Your task to perform on an android device: turn on bluetooth scan Image 0: 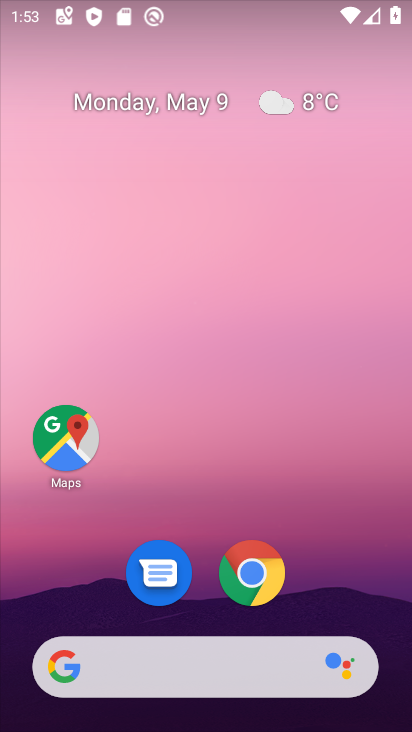
Step 0: drag from (194, 601) to (213, 99)
Your task to perform on an android device: turn on bluetooth scan Image 1: 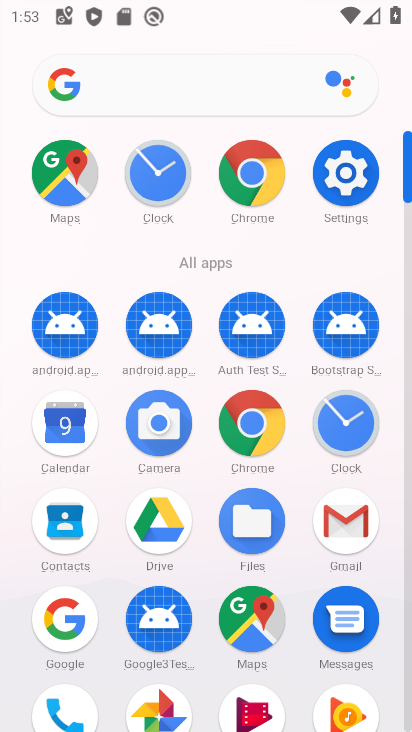
Step 1: click (349, 173)
Your task to perform on an android device: turn on bluetooth scan Image 2: 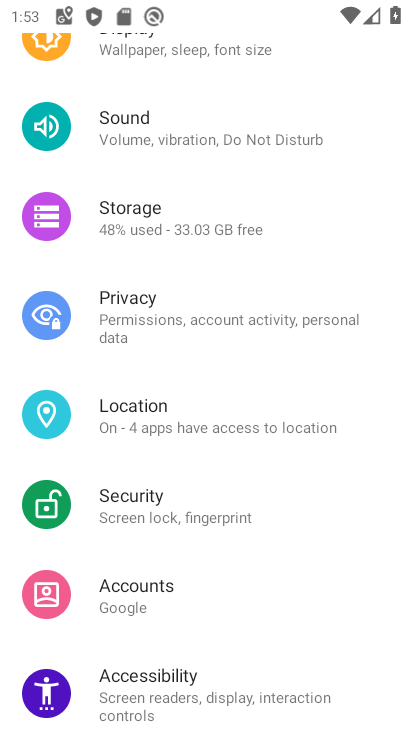
Step 2: drag from (230, 596) to (250, 442)
Your task to perform on an android device: turn on bluetooth scan Image 3: 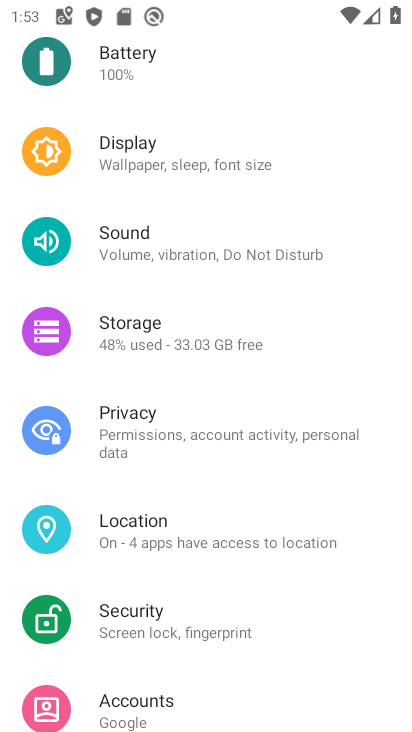
Step 3: click (142, 539)
Your task to perform on an android device: turn on bluetooth scan Image 4: 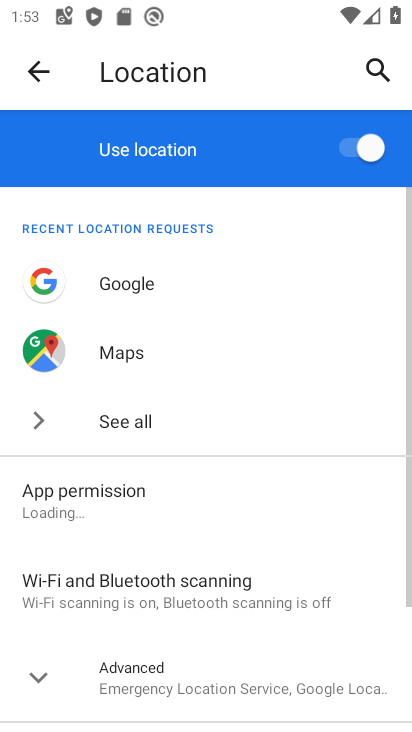
Step 4: click (157, 599)
Your task to perform on an android device: turn on bluetooth scan Image 5: 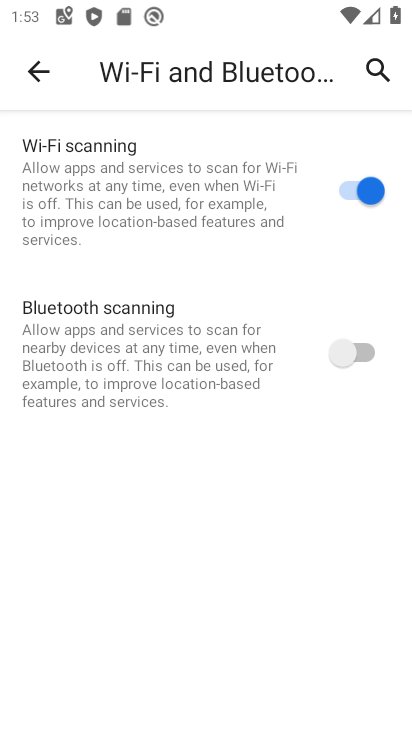
Step 5: click (359, 351)
Your task to perform on an android device: turn on bluetooth scan Image 6: 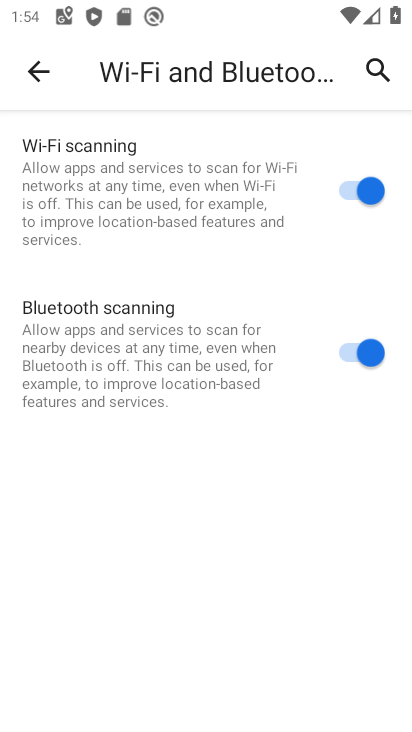
Step 6: task complete